Your task to perform on an android device: Open Yahoo.com Image 0: 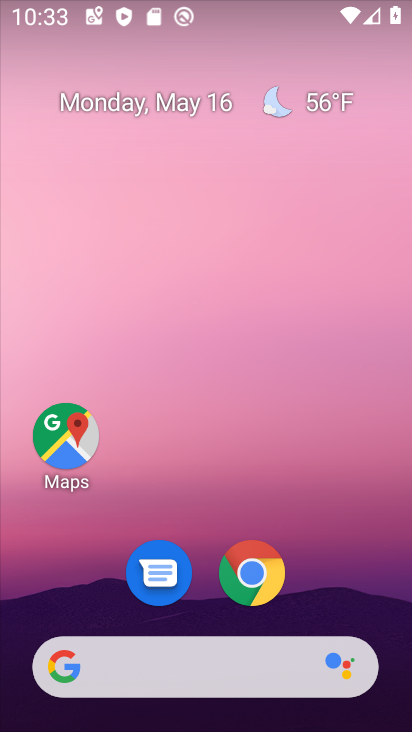
Step 0: click (166, 666)
Your task to perform on an android device: Open Yahoo.com Image 1: 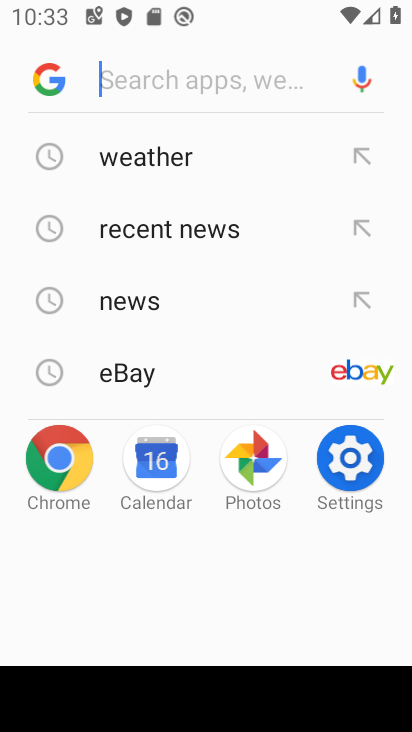
Step 1: type "yahoo.com"
Your task to perform on an android device: Open Yahoo.com Image 2: 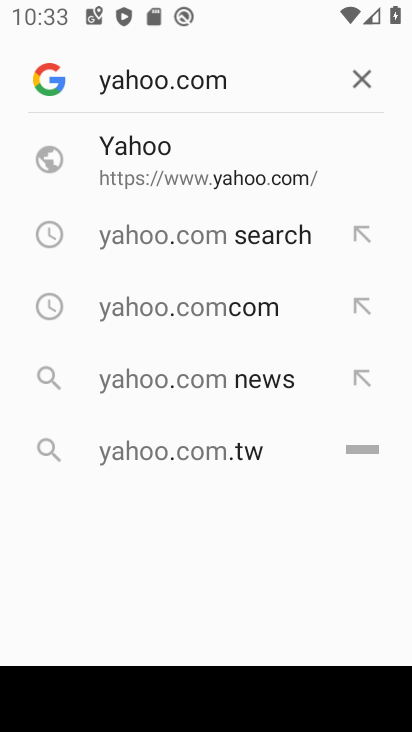
Step 2: click (320, 186)
Your task to perform on an android device: Open Yahoo.com Image 3: 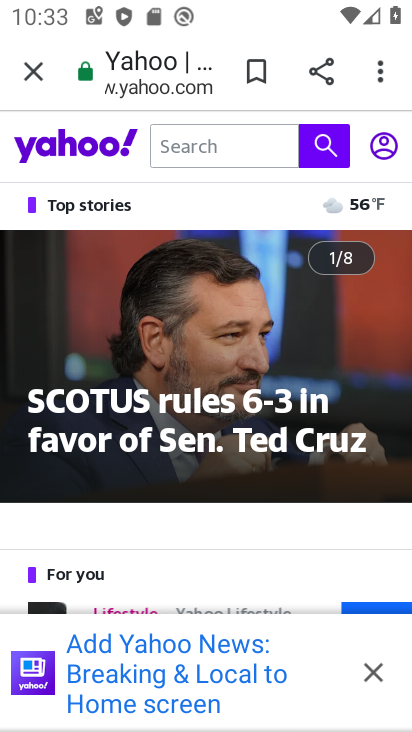
Step 3: task complete